Your task to perform on an android device: Go to sound settings Image 0: 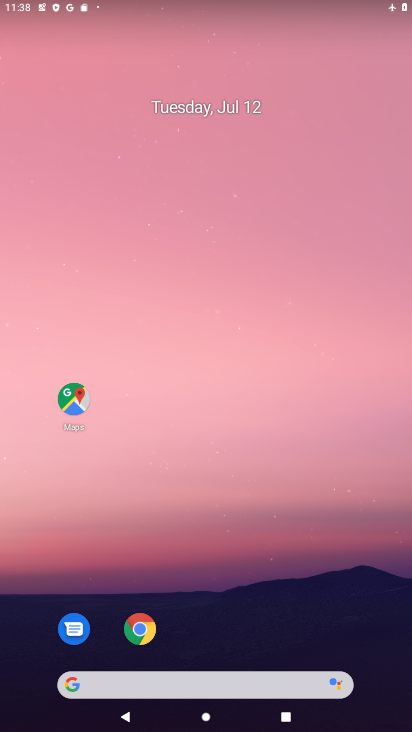
Step 0: drag from (211, 643) to (264, 111)
Your task to perform on an android device: Go to sound settings Image 1: 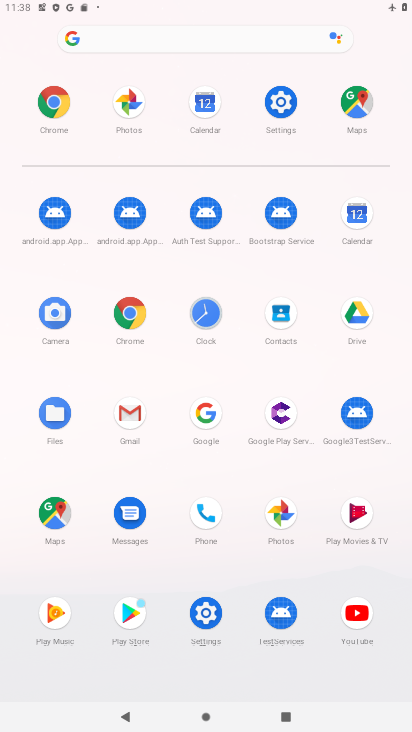
Step 1: click (269, 103)
Your task to perform on an android device: Go to sound settings Image 2: 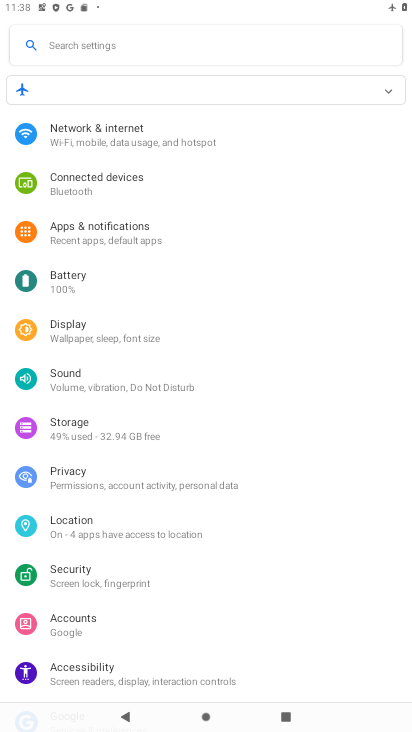
Step 2: click (102, 375)
Your task to perform on an android device: Go to sound settings Image 3: 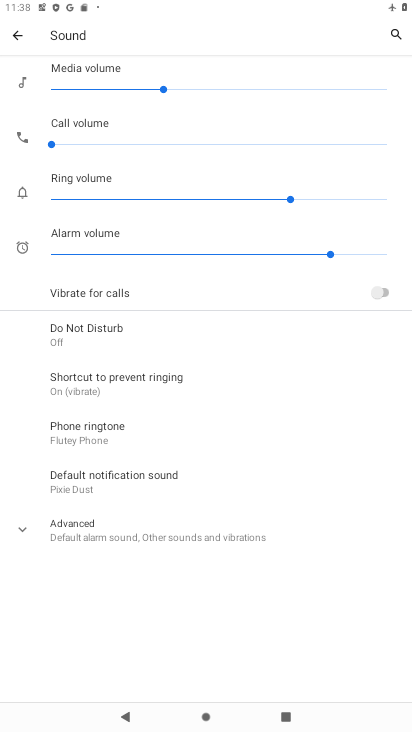
Step 3: task complete